Your task to perform on an android device: change your default location settings in chrome Image 0: 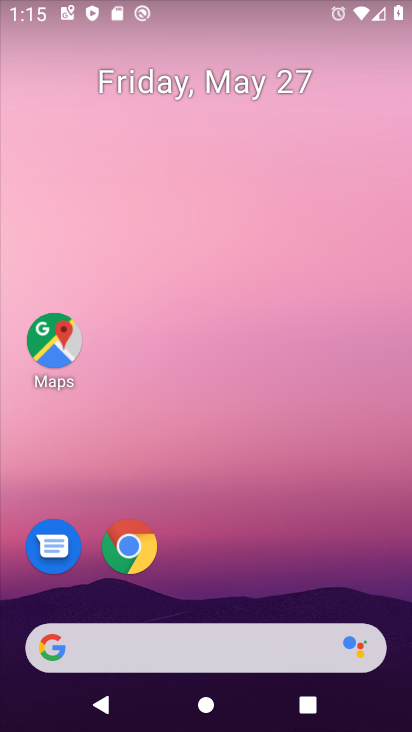
Step 0: press home button
Your task to perform on an android device: change your default location settings in chrome Image 1: 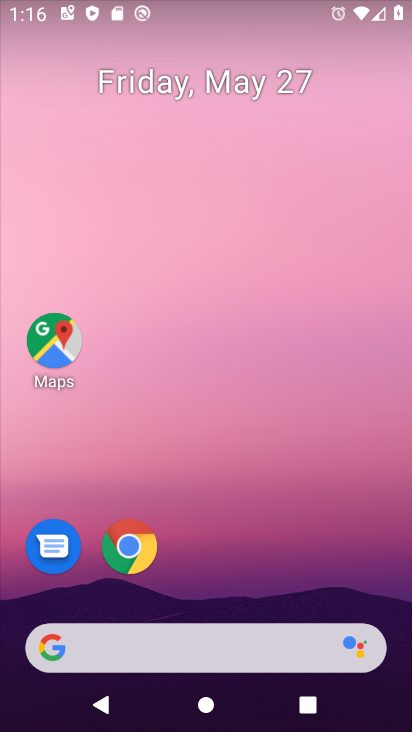
Step 1: drag from (305, 635) to (389, 69)
Your task to perform on an android device: change your default location settings in chrome Image 2: 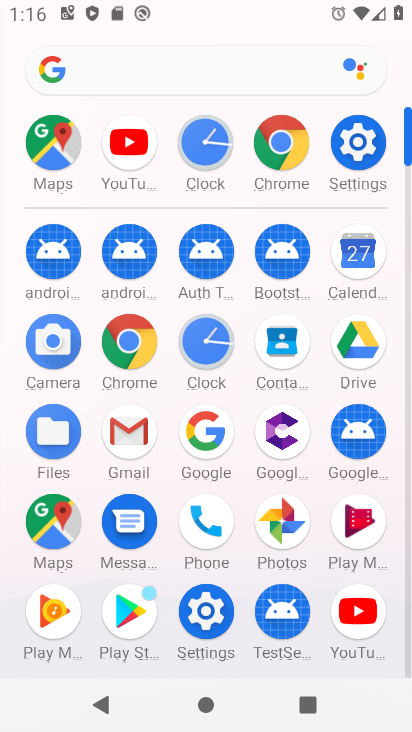
Step 2: click (133, 350)
Your task to perform on an android device: change your default location settings in chrome Image 3: 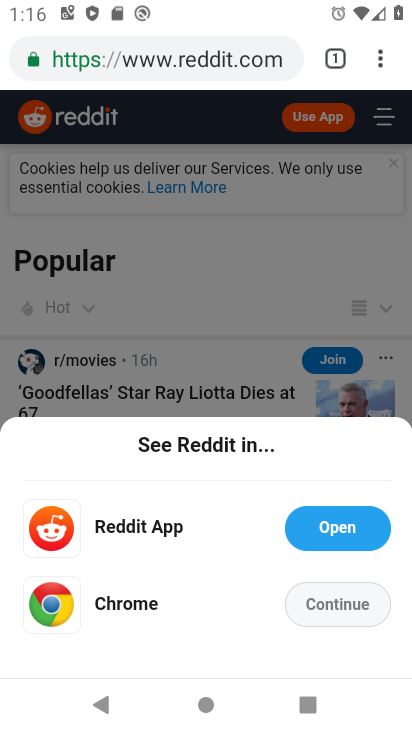
Step 3: click (374, 70)
Your task to perform on an android device: change your default location settings in chrome Image 4: 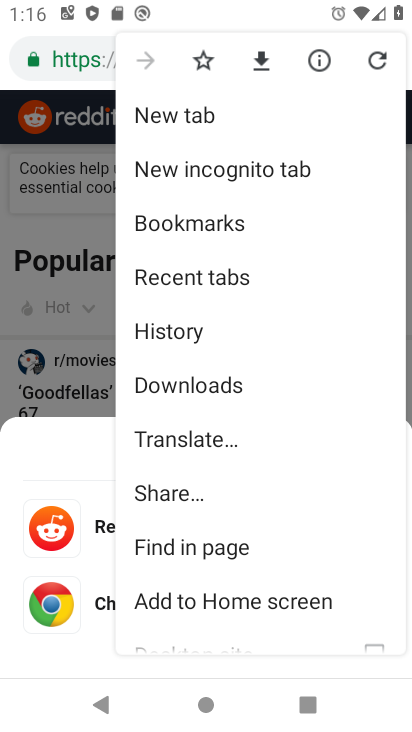
Step 4: drag from (185, 491) to (225, 192)
Your task to perform on an android device: change your default location settings in chrome Image 5: 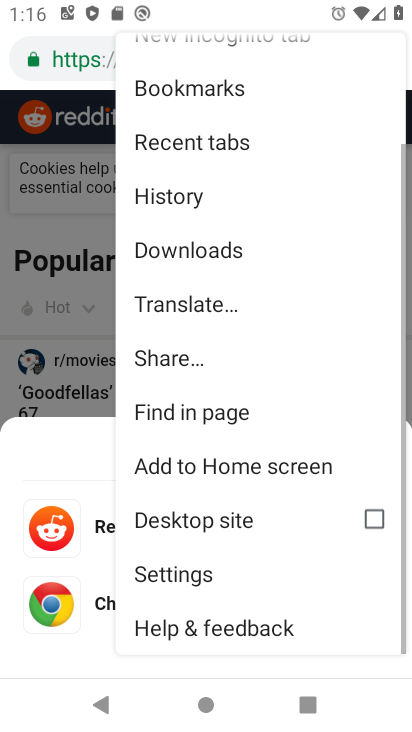
Step 5: click (154, 575)
Your task to perform on an android device: change your default location settings in chrome Image 6: 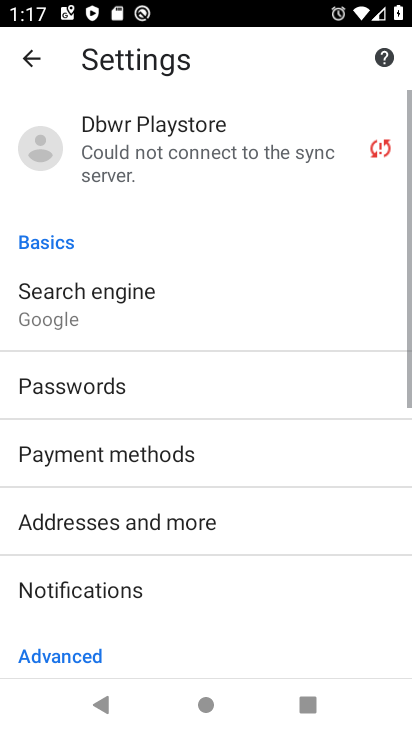
Step 6: drag from (154, 610) to (253, 304)
Your task to perform on an android device: change your default location settings in chrome Image 7: 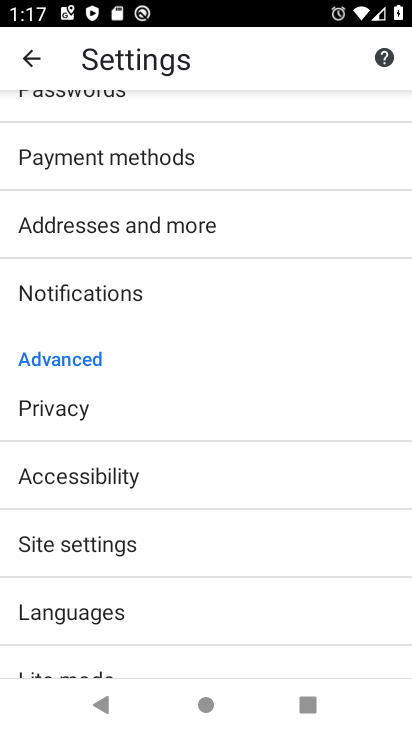
Step 7: click (129, 540)
Your task to perform on an android device: change your default location settings in chrome Image 8: 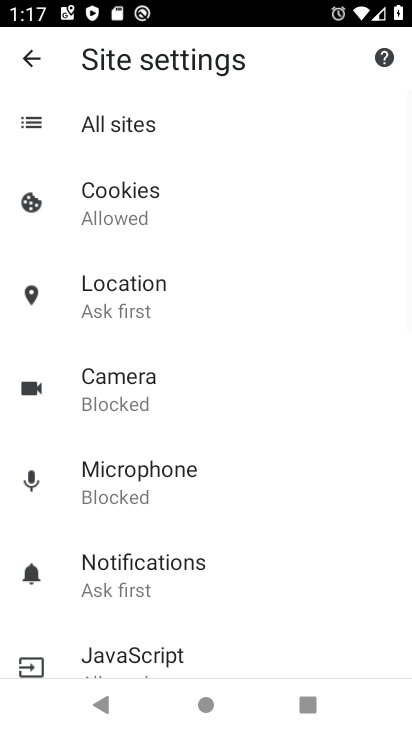
Step 8: click (143, 313)
Your task to perform on an android device: change your default location settings in chrome Image 9: 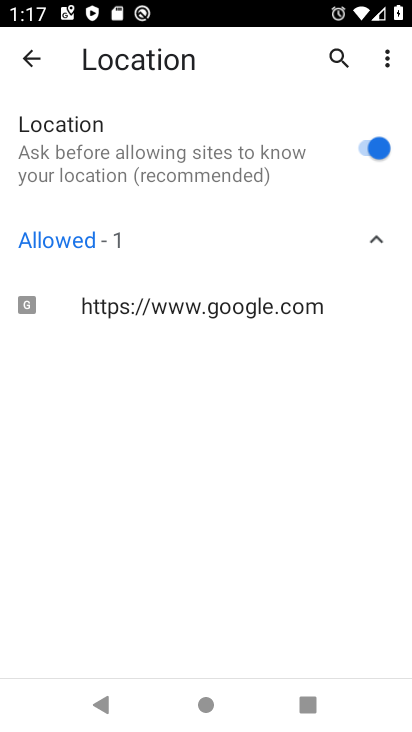
Step 9: task complete